Your task to perform on an android device: Open Google Maps and go to "Timeline" Image 0: 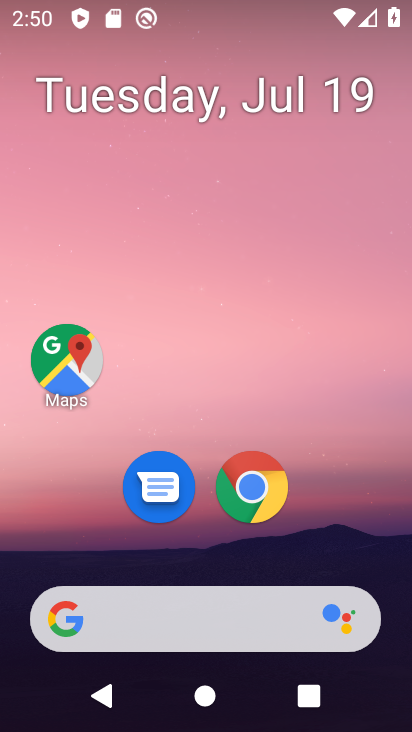
Step 0: click (92, 353)
Your task to perform on an android device: Open Google Maps and go to "Timeline" Image 1: 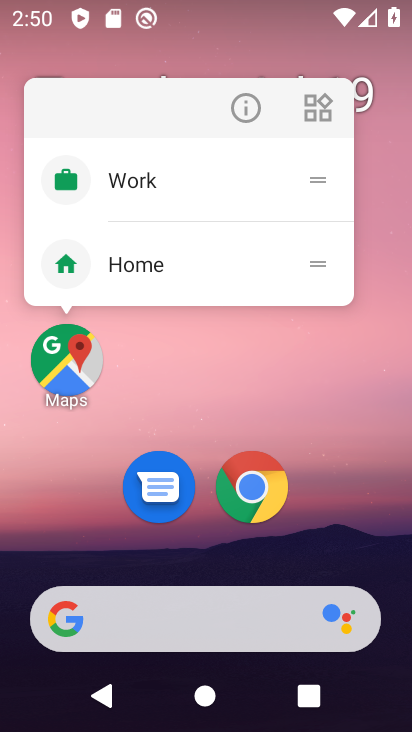
Step 1: click (56, 366)
Your task to perform on an android device: Open Google Maps and go to "Timeline" Image 2: 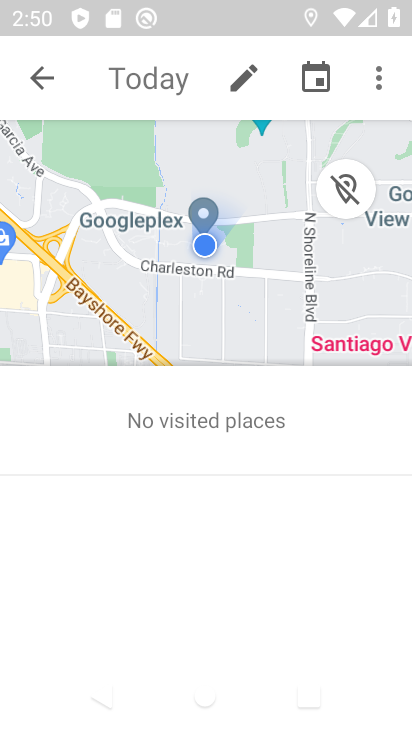
Step 2: task complete